Your task to perform on an android device: Show me recent news Image 0: 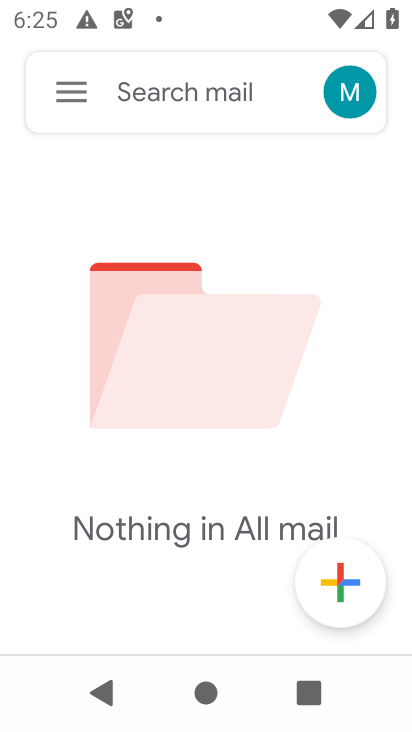
Step 0: press home button
Your task to perform on an android device: Show me recent news Image 1: 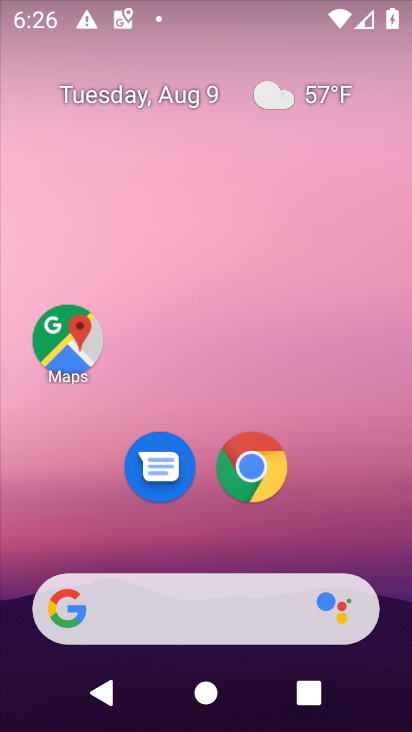
Step 1: click (159, 633)
Your task to perform on an android device: Show me recent news Image 2: 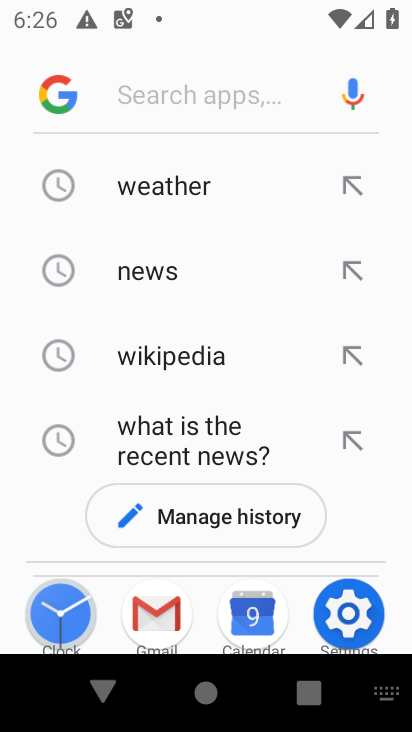
Step 2: type "recent news"
Your task to perform on an android device: Show me recent news Image 3: 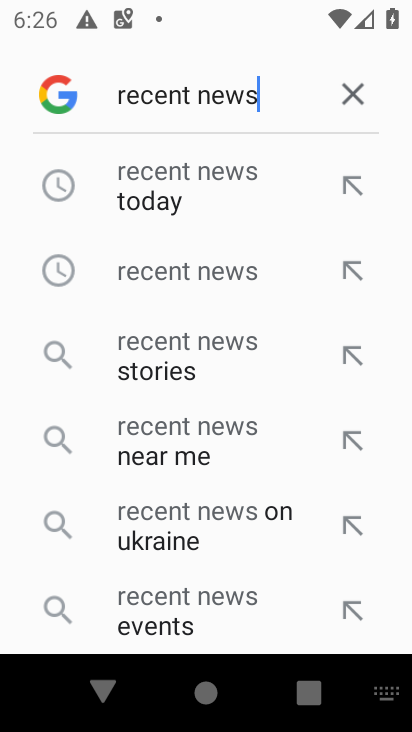
Step 3: click (225, 102)
Your task to perform on an android device: Show me recent news Image 4: 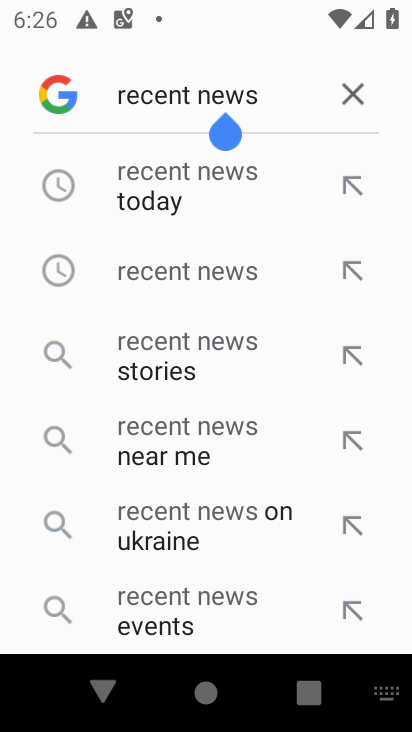
Step 4: click (202, 182)
Your task to perform on an android device: Show me recent news Image 5: 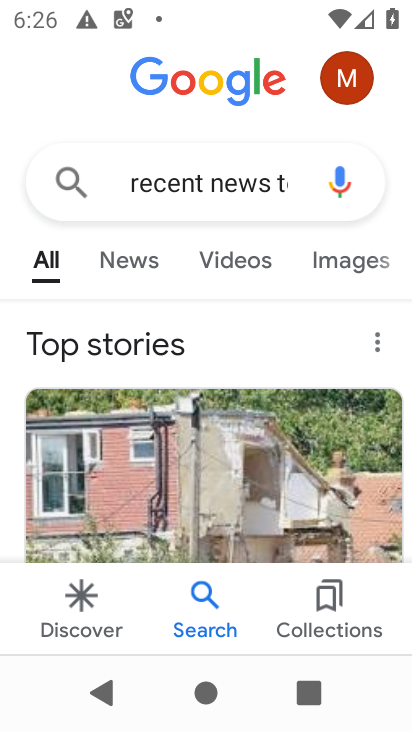
Step 5: task complete